Your task to perform on an android device: Open accessibility settings Image 0: 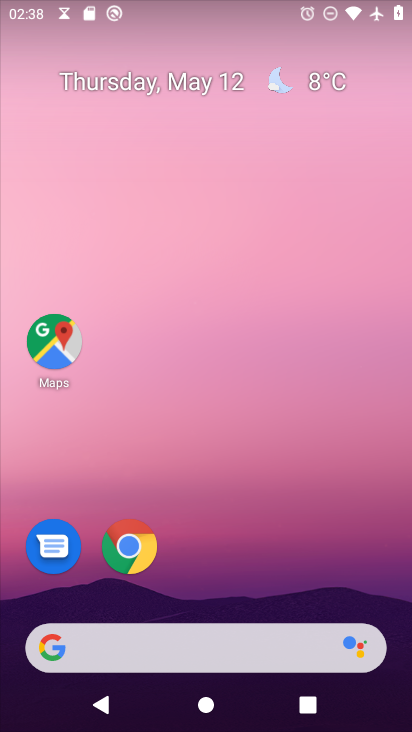
Step 0: drag from (127, 644) to (205, 185)
Your task to perform on an android device: Open accessibility settings Image 1: 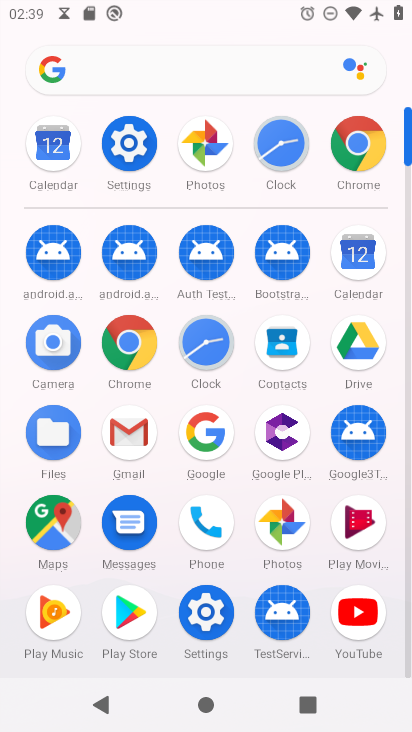
Step 1: click (123, 152)
Your task to perform on an android device: Open accessibility settings Image 2: 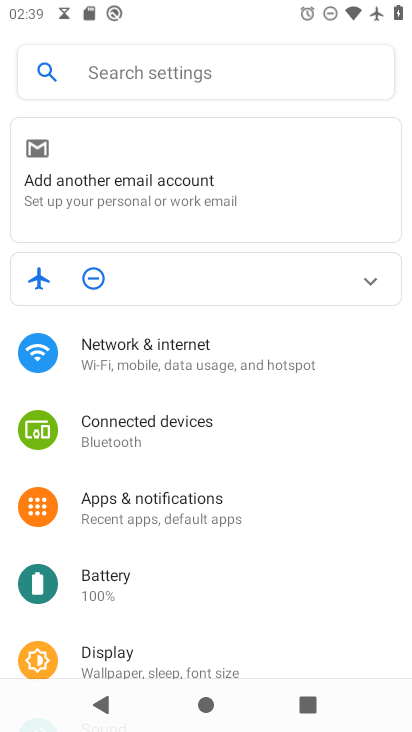
Step 2: drag from (196, 655) to (301, 122)
Your task to perform on an android device: Open accessibility settings Image 3: 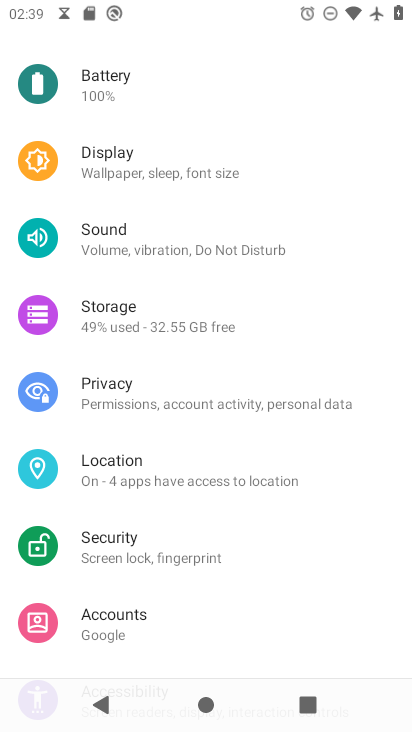
Step 3: drag from (172, 621) to (305, 199)
Your task to perform on an android device: Open accessibility settings Image 4: 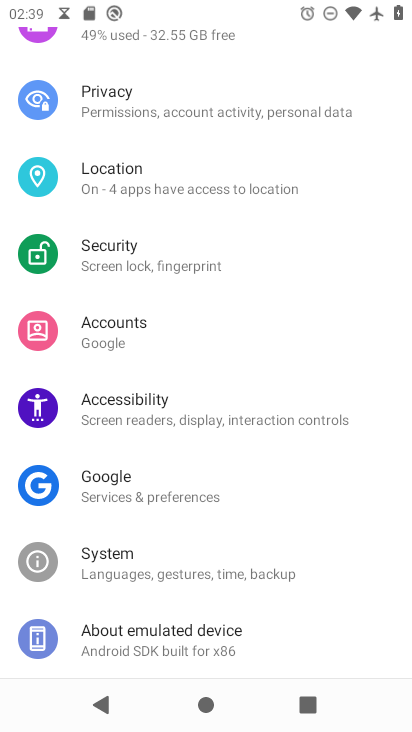
Step 4: click (119, 406)
Your task to perform on an android device: Open accessibility settings Image 5: 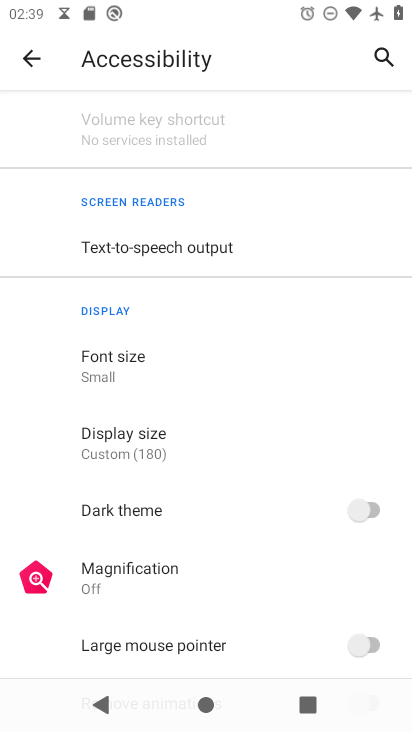
Step 5: task complete